Your task to perform on an android device: Go to network settings Image 0: 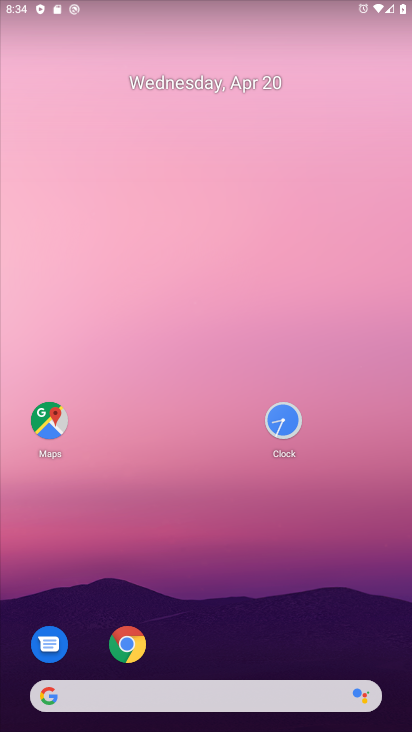
Step 0: drag from (240, 706) to (234, 190)
Your task to perform on an android device: Go to network settings Image 1: 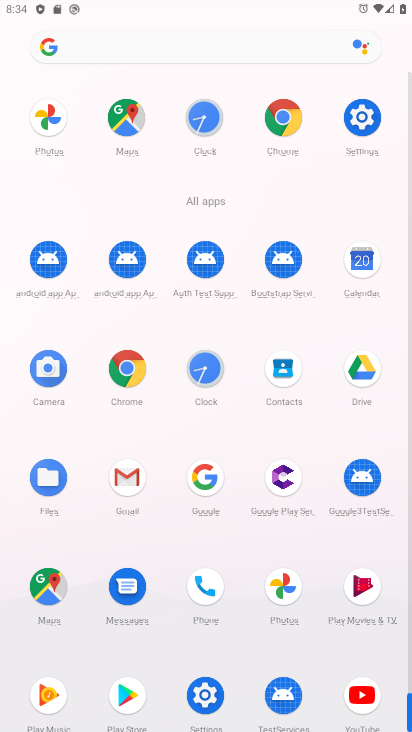
Step 1: drag from (252, 646) to (267, 100)
Your task to perform on an android device: Go to network settings Image 2: 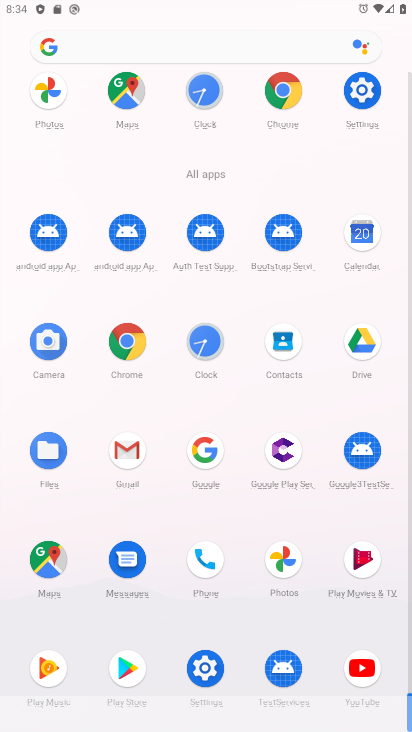
Step 2: click (201, 652)
Your task to perform on an android device: Go to network settings Image 3: 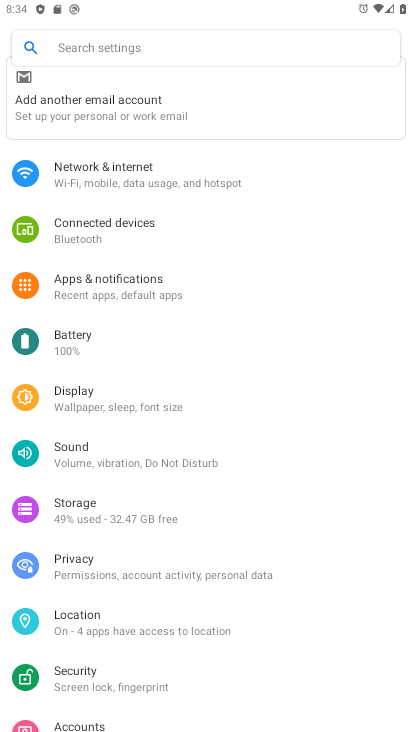
Step 3: click (126, 181)
Your task to perform on an android device: Go to network settings Image 4: 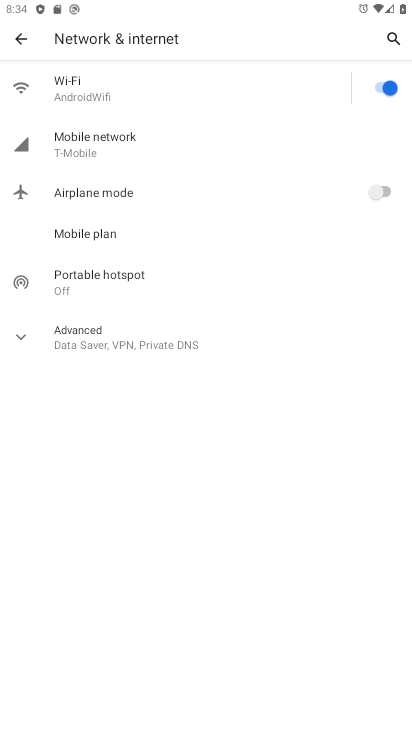
Step 4: click (100, 144)
Your task to perform on an android device: Go to network settings Image 5: 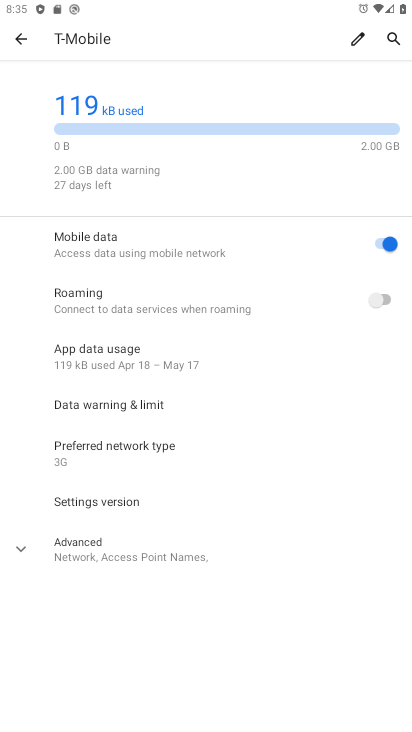
Step 5: task complete